Your task to perform on an android device: turn off wifi Image 0: 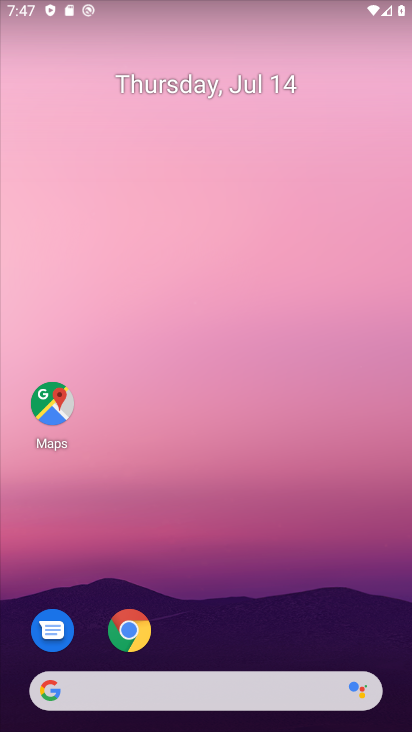
Step 0: drag from (279, 603) to (278, 257)
Your task to perform on an android device: turn off wifi Image 1: 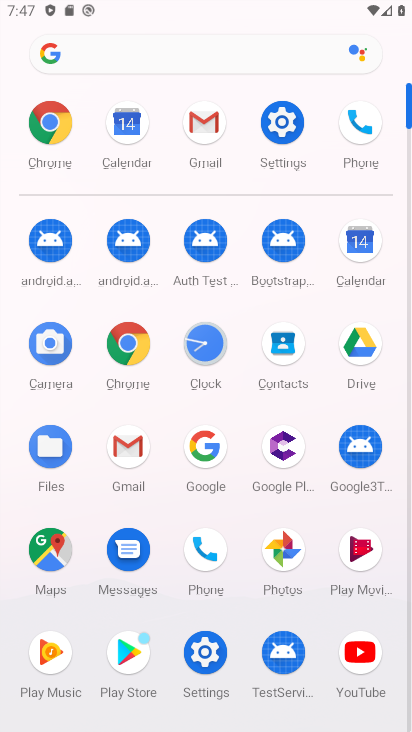
Step 1: click (285, 121)
Your task to perform on an android device: turn off wifi Image 2: 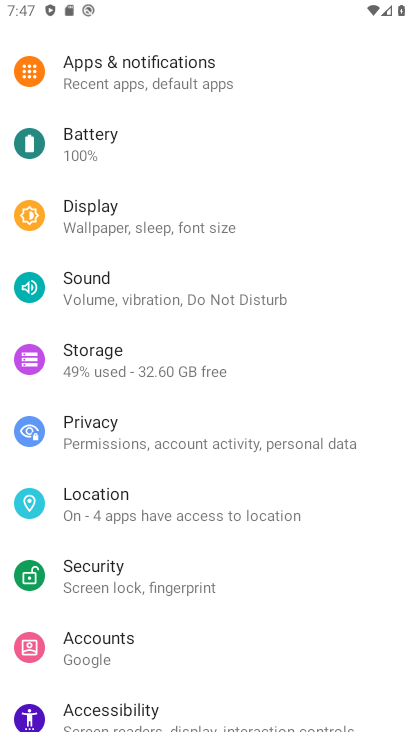
Step 2: drag from (162, 83) to (154, 730)
Your task to perform on an android device: turn off wifi Image 3: 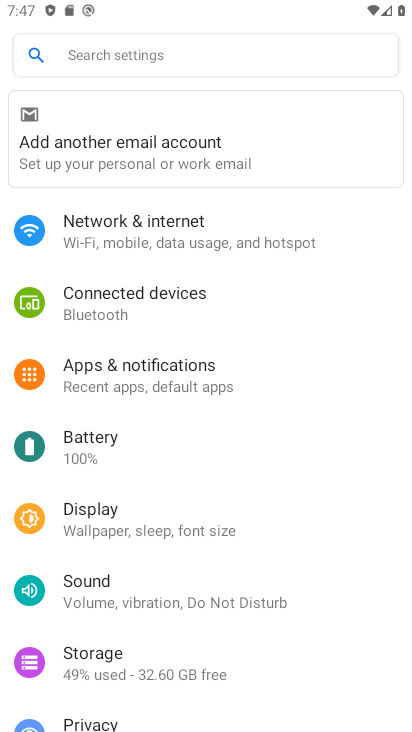
Step 3: click (141, 236)
Your task to perform on an android device: turn off wifi Image 4: 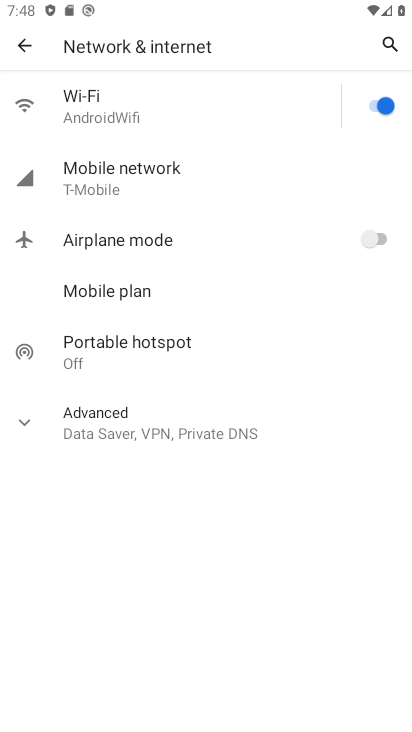
Step 4: click (377, 105)
Your task to perform on an android device: turn off wifi Image 5: 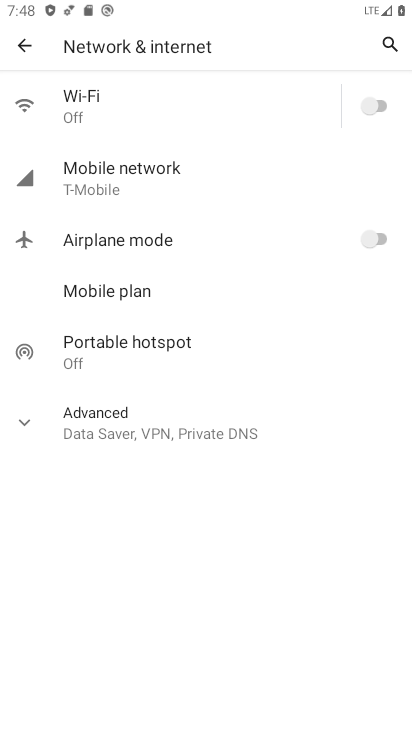
Step 5: task complete